Your task to perform on an android device: Open Google Chrome Image 0: 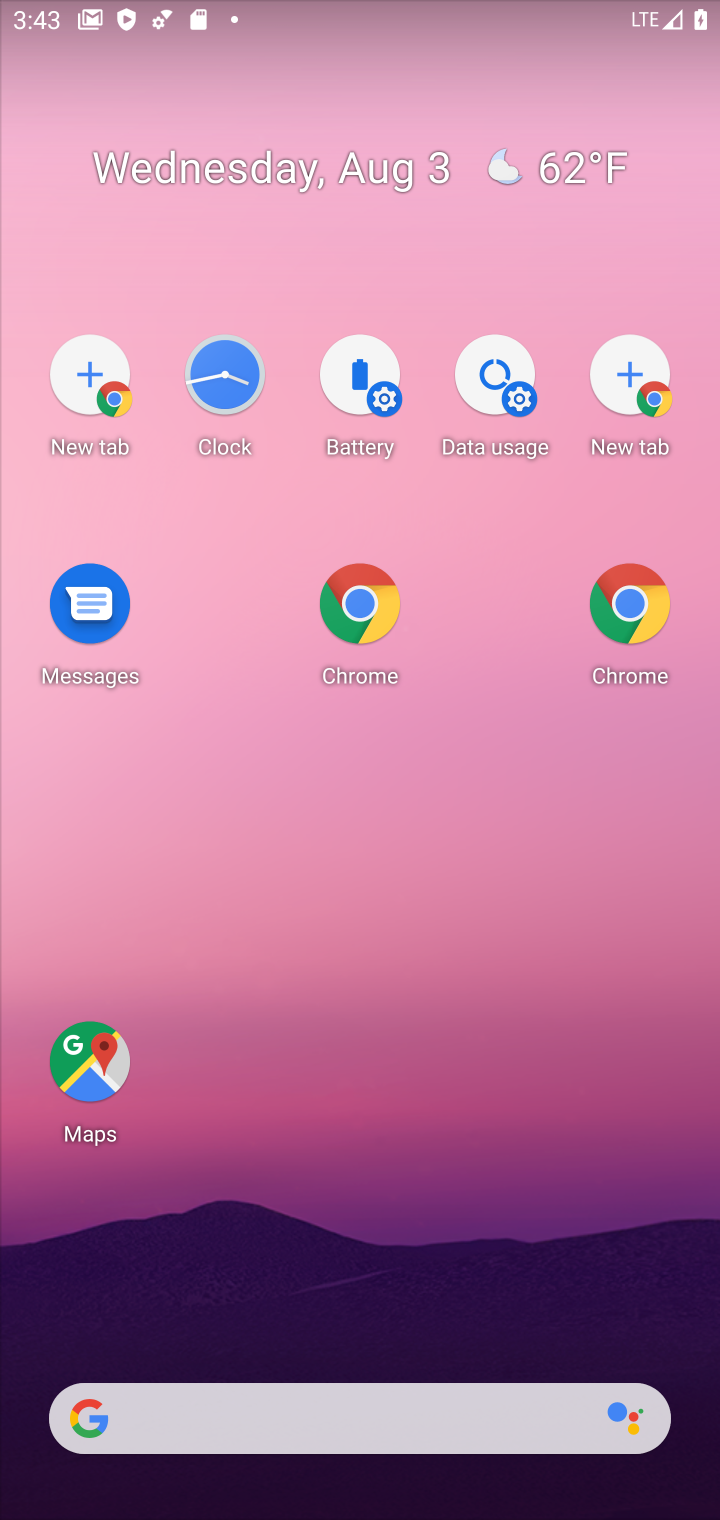
Step 0: press back button
Your task to perform on an android device: Open Google Chrome Image 1: 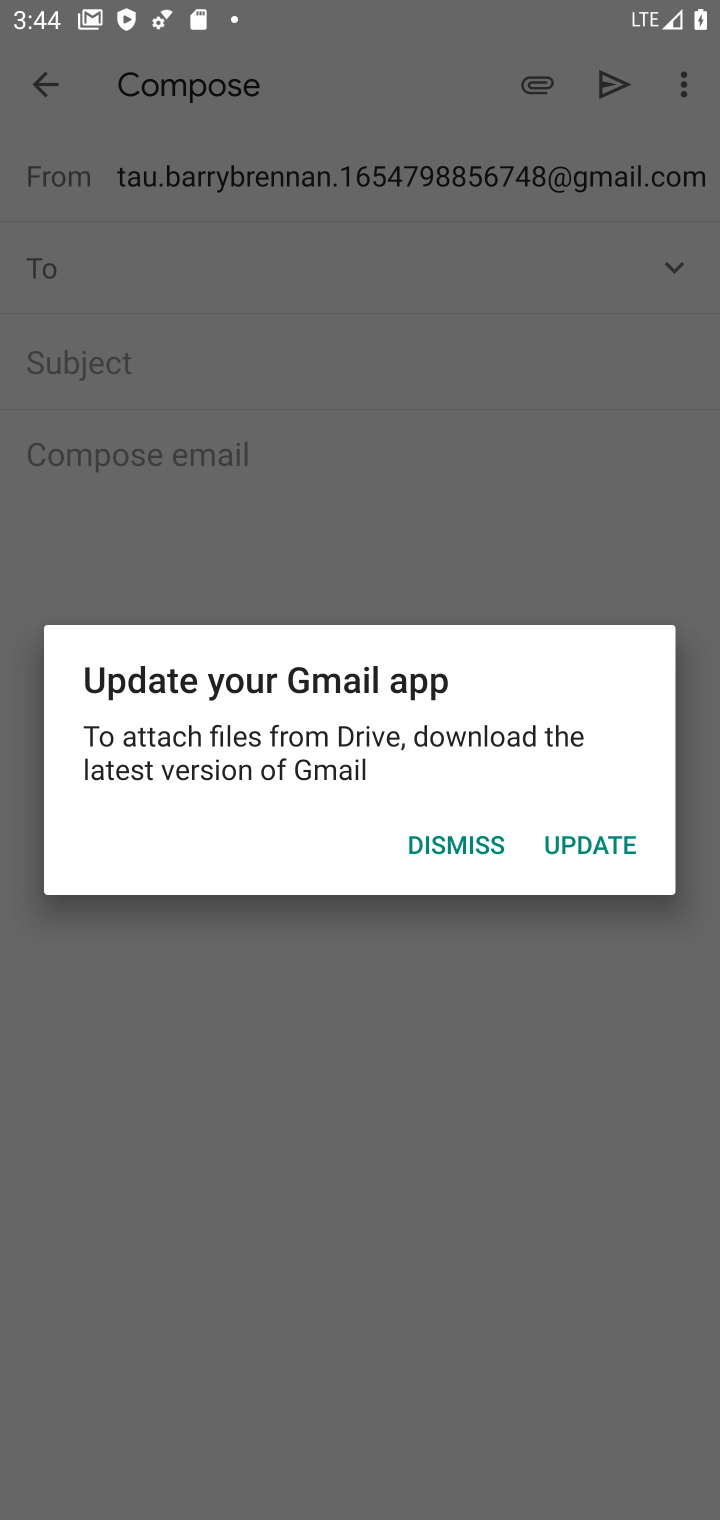
Step 1: click (307, 506)
Your task to perform on an android device: Open Google Chrome Image 2: 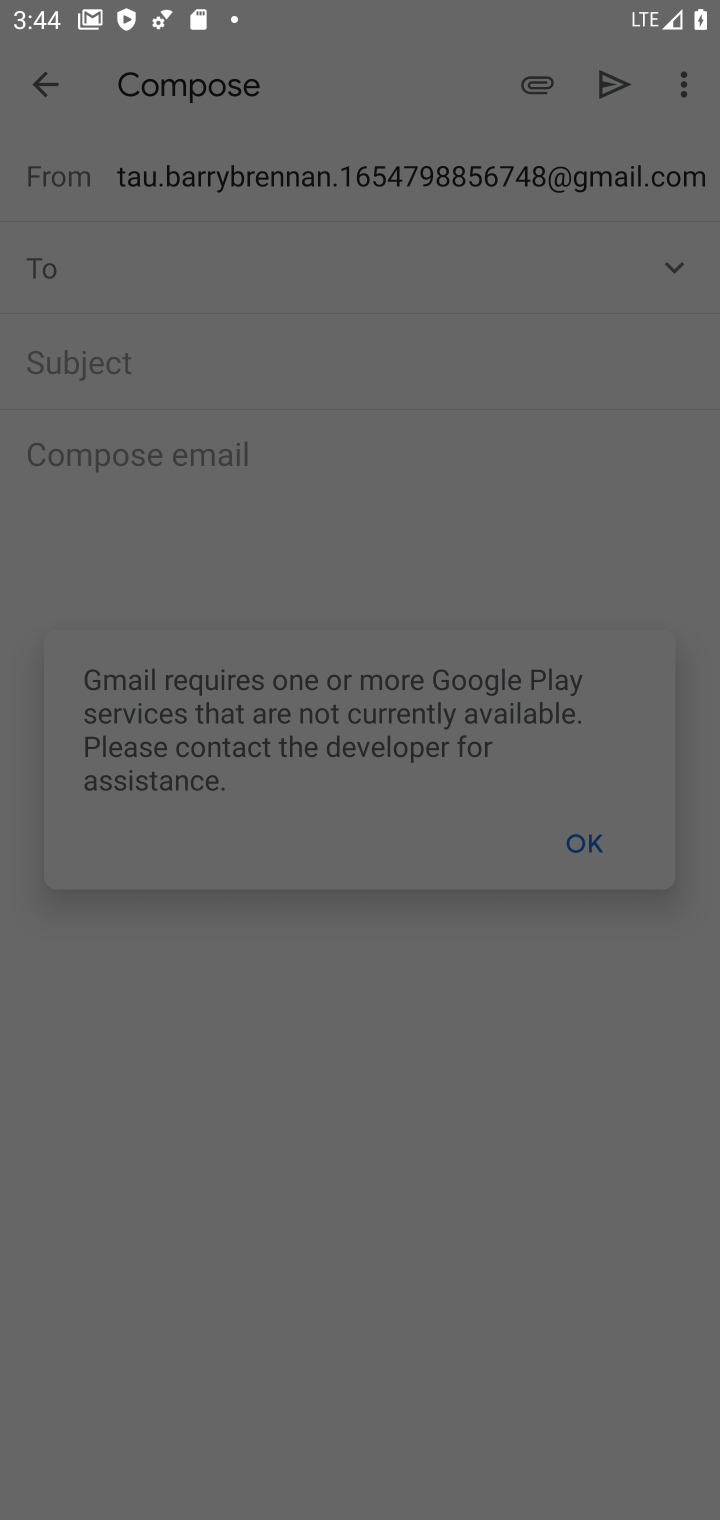
Step 2: press home button
Your task to perform on an android device: Open Google Chrome Image 3: 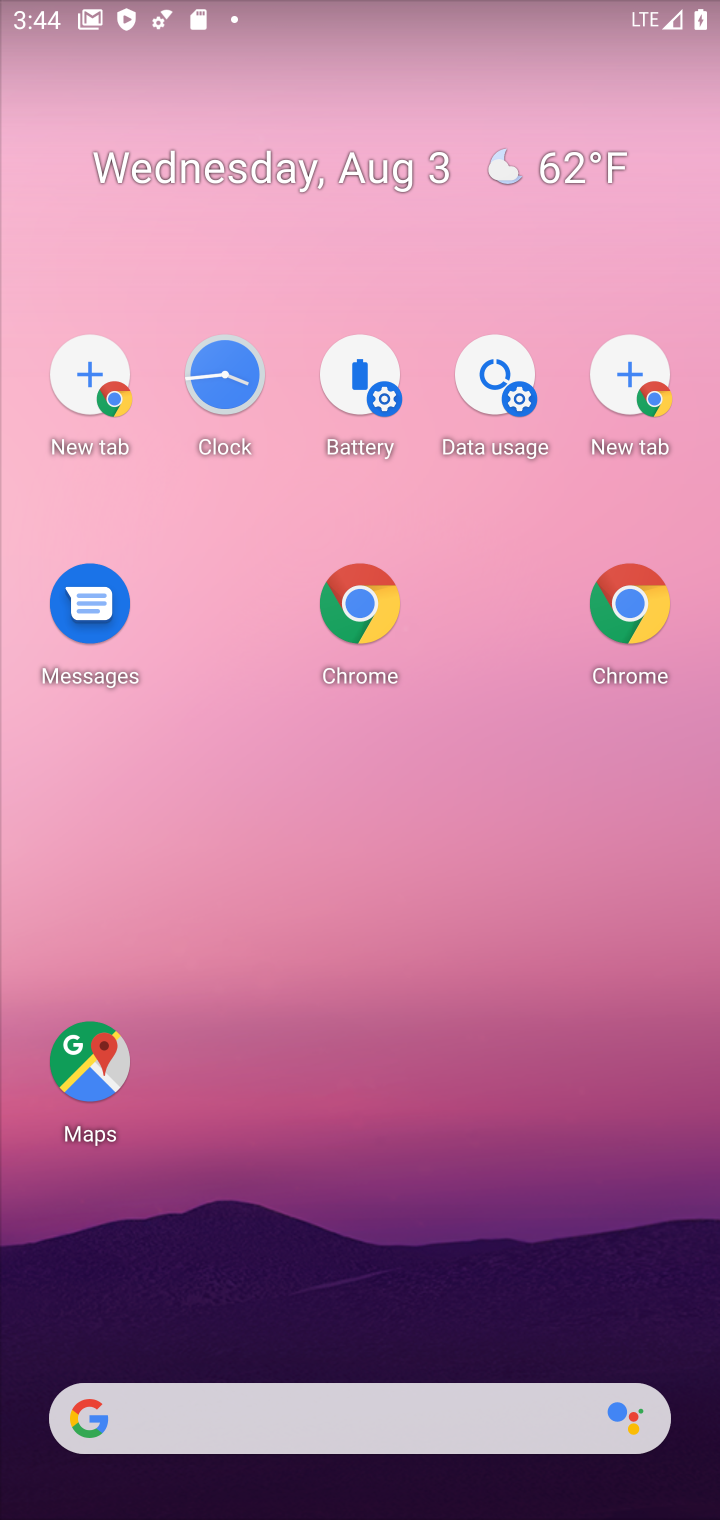
Step 3: click (579, 826)
Your task to perform on an android device: Open Google Chrome Image 4: 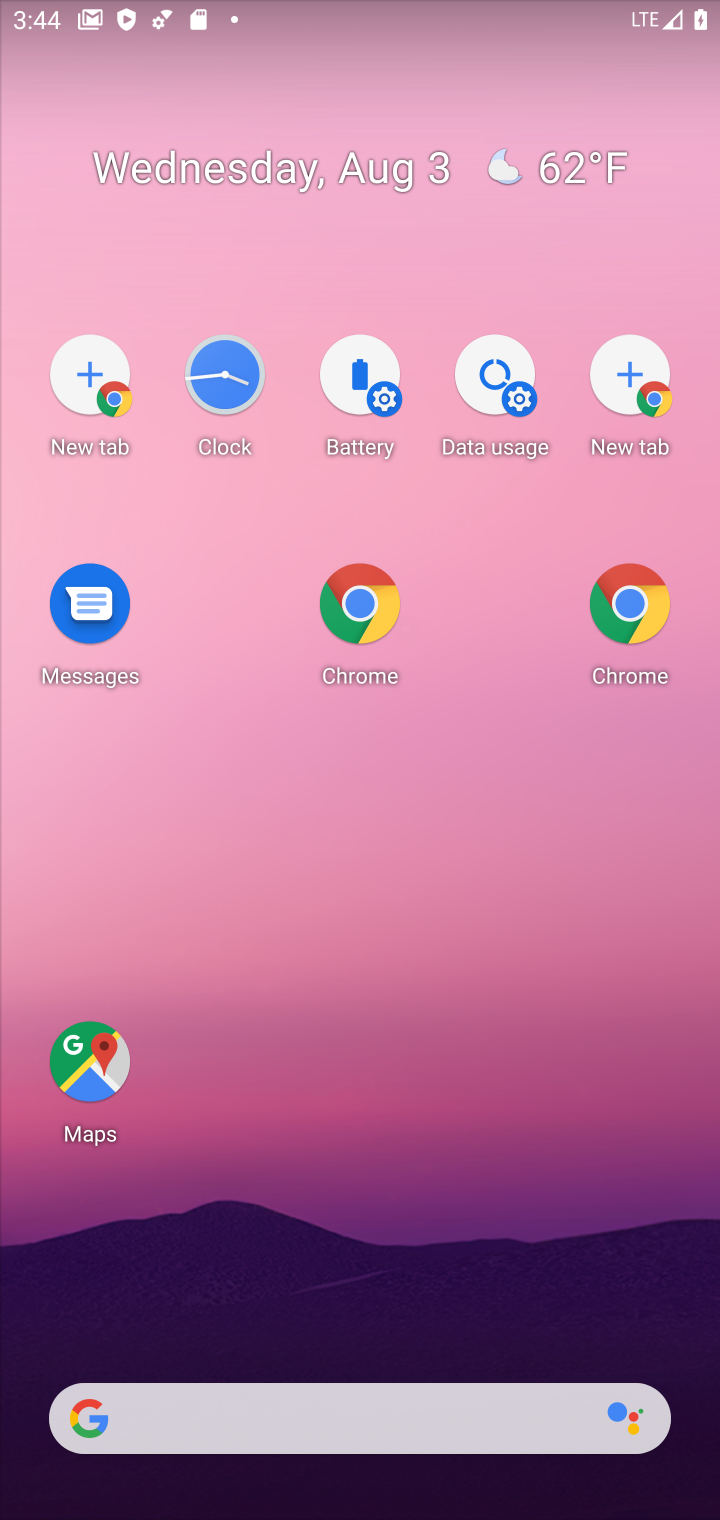
Step 4: drag from (413, 1123) to (363, 810)
Your task to perform on an android device: Open Google Chrome Image 5: 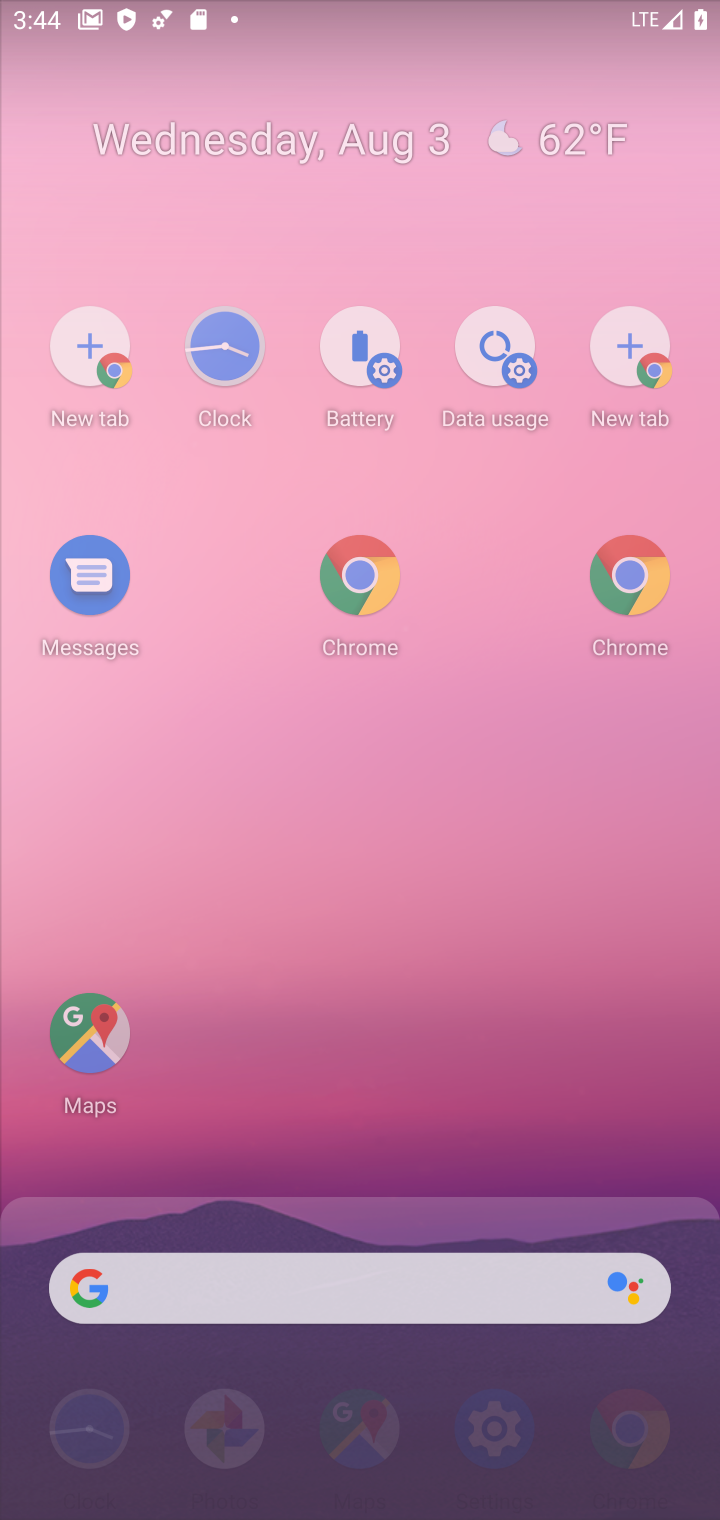
Step 5: drag from (289, 707) to (474, 577)
Your task to perform on an android device: Open Google Chrome Image 6: 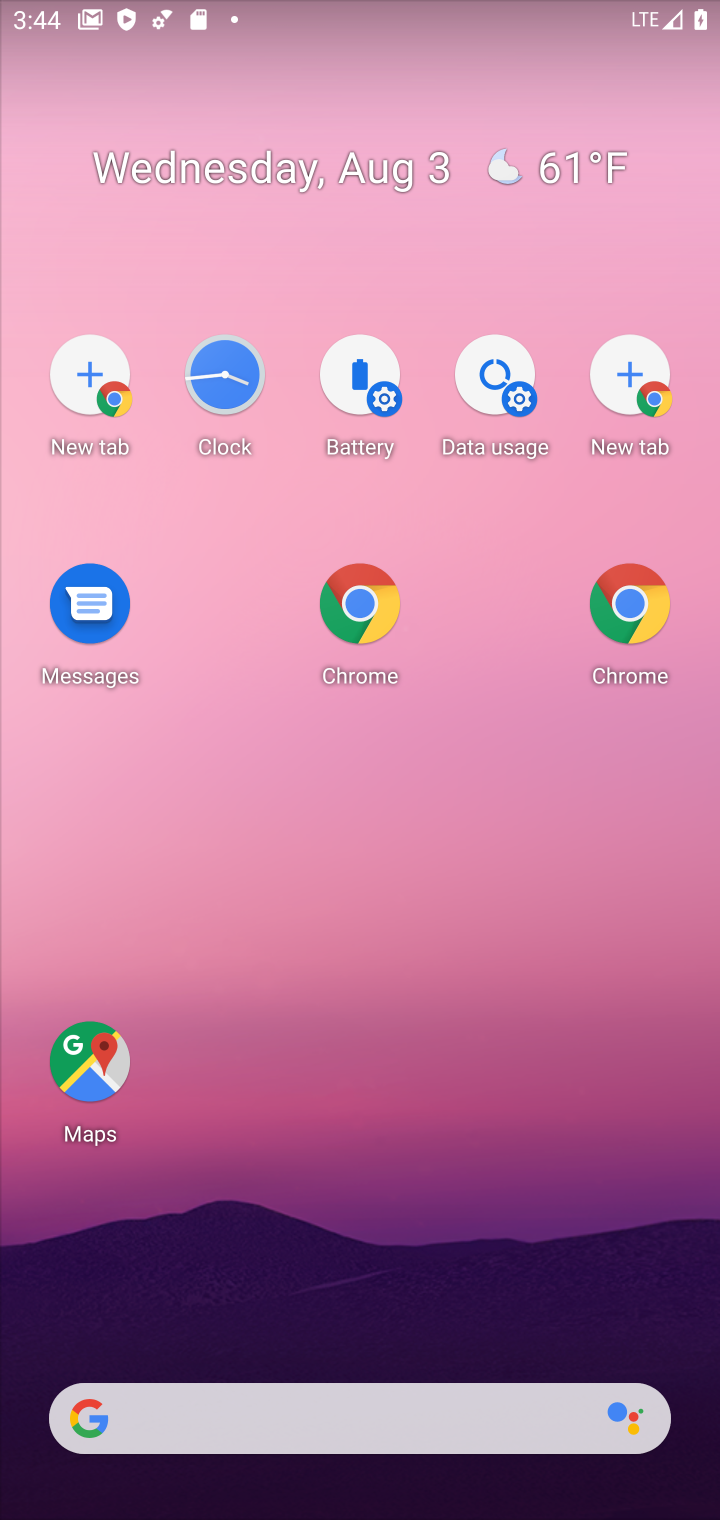
Step 6: click (348, 618)
Your task to perform on an android device: Open Google Chrome Image 7: 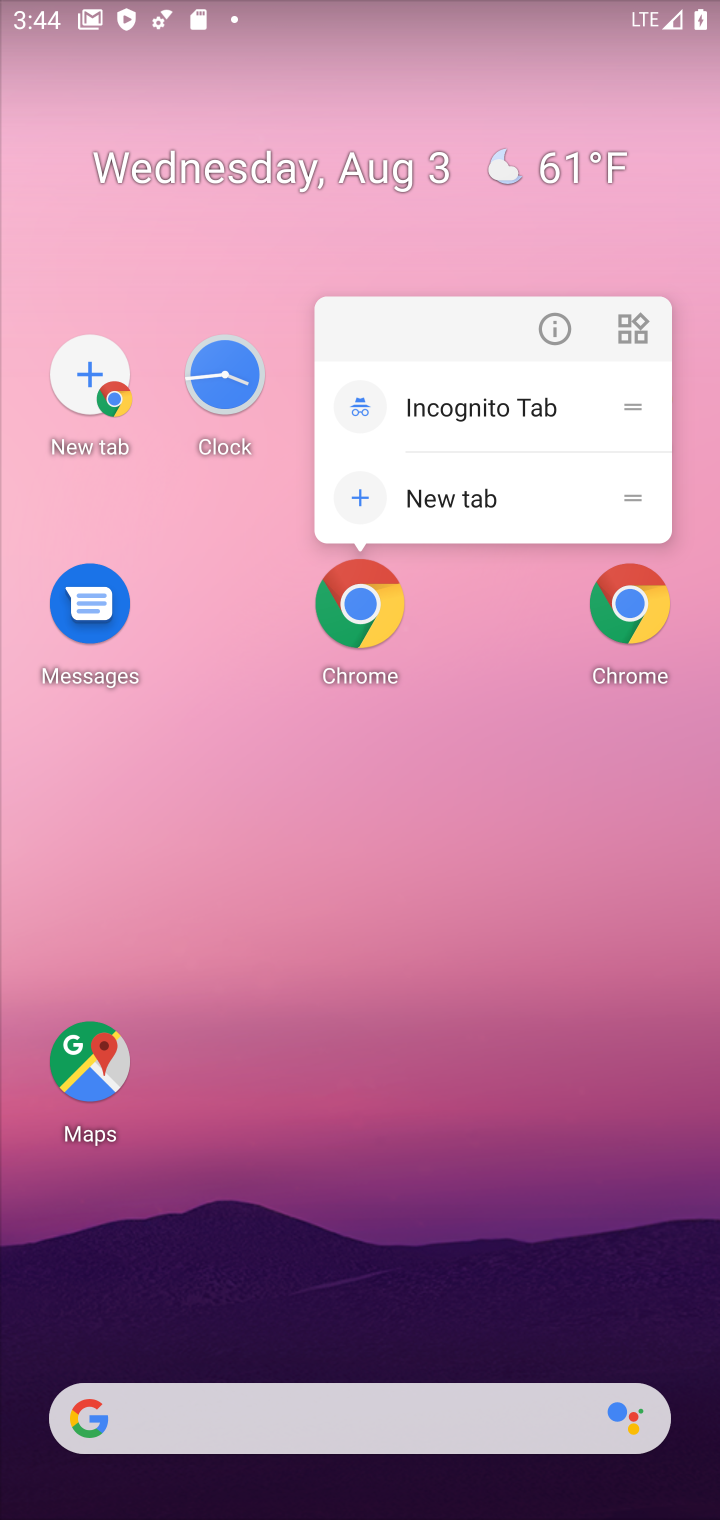
Step 7: drag from (387, 1108) to (387, 530)
Your task to perform on an android device: Open Google Chrome Image 8: 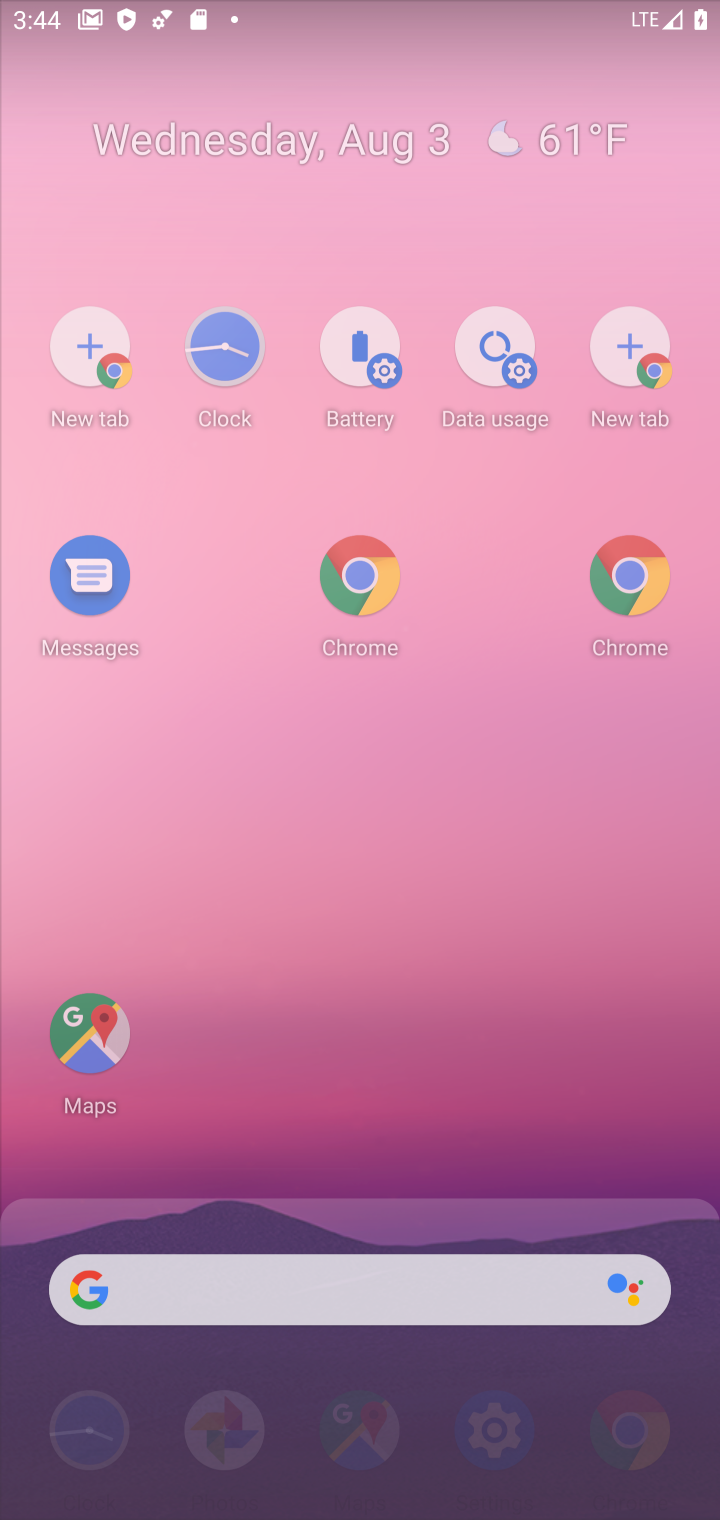
Step 8: click (289, 625)
Your task to perform on an android device: Open Google Chrome Image 9: 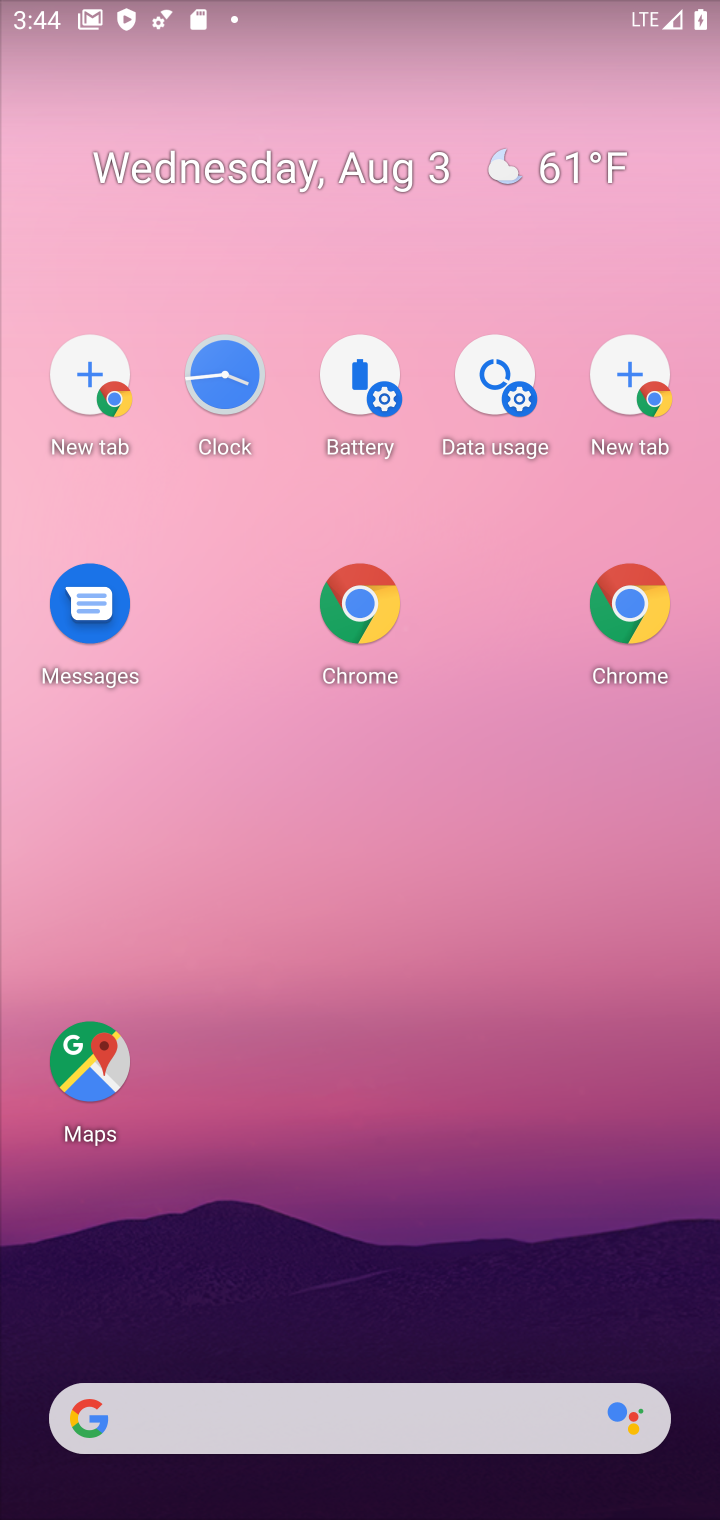
Step 9: click (375, 591)
Your task to perform on an android device: Open Google Chrome Image 10: 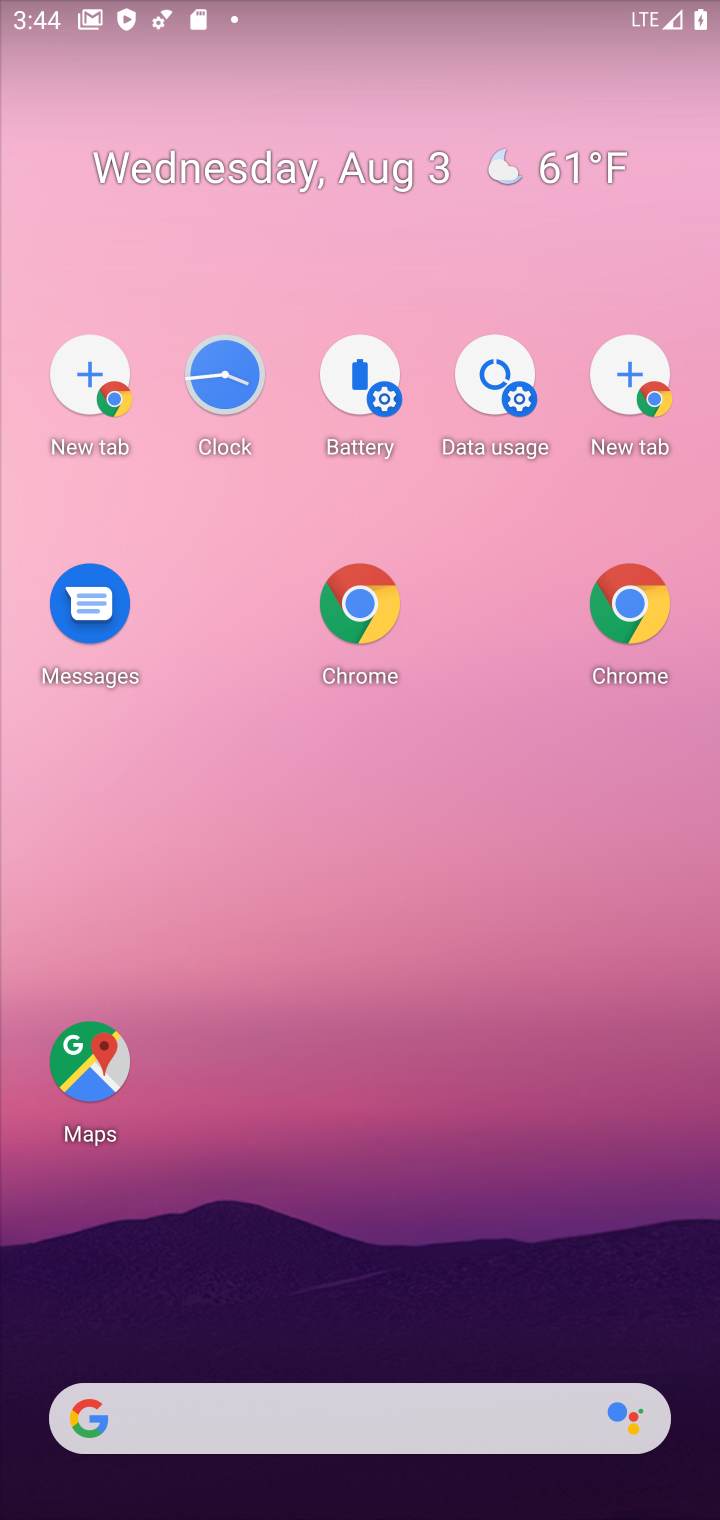
Step 10: task complete